Your task to perform on an android device: Go to calendar. Show me events next week Image 0: 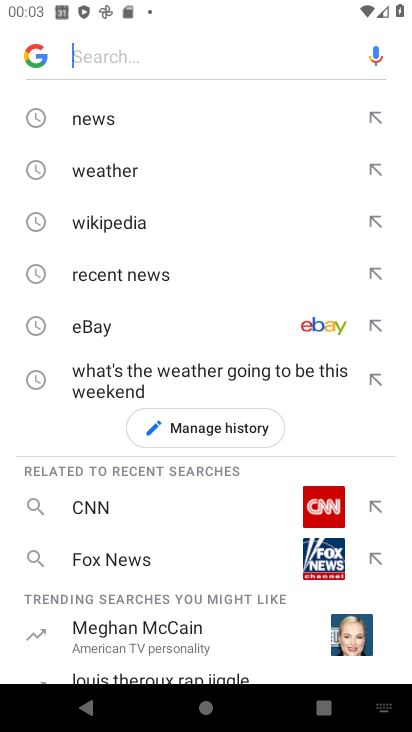
Step 0: press back button
Your task to perform on an android device: Go to calendar. Show me events next week Image 1: 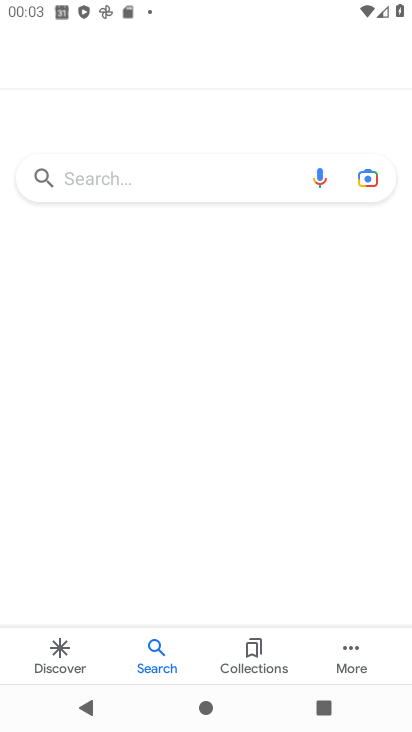
Step 1: press back button
Your task to perform on an android device: Go to calendar. Show me events next week Image 2: 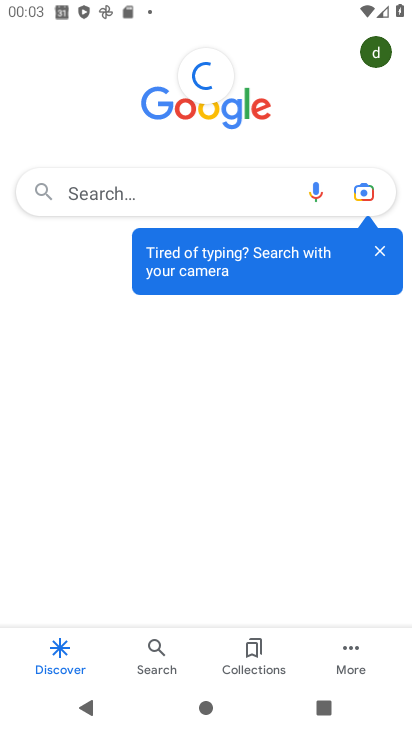
Step 2: press back button
Your task to perform on an android device: Go to calendar. Show me events next week Image 3: 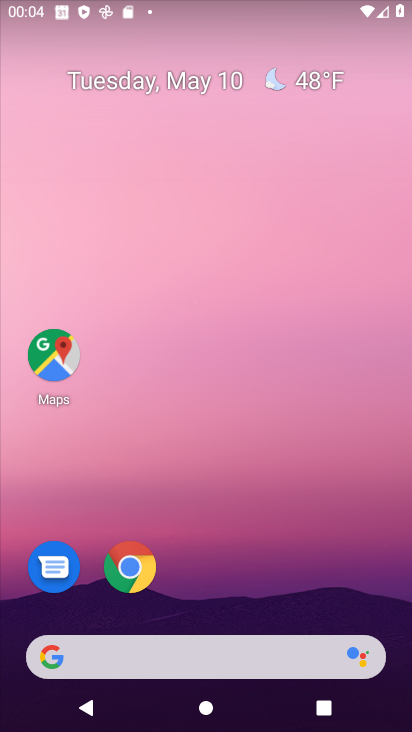
Step 3: drag from (236, 580) to (147, 128)
Your task to perform on an android device: Go to calendar. Show me events next week Image 4: 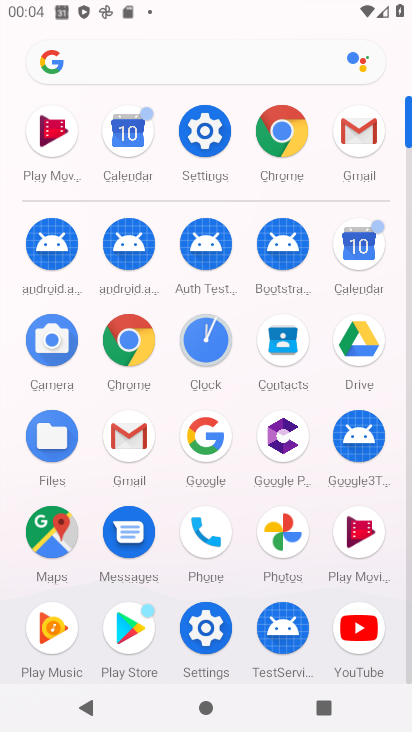
Step 4: click (125, 133)
Your task to perform on an android device: Go to calendar. Show me events next week Image 5: 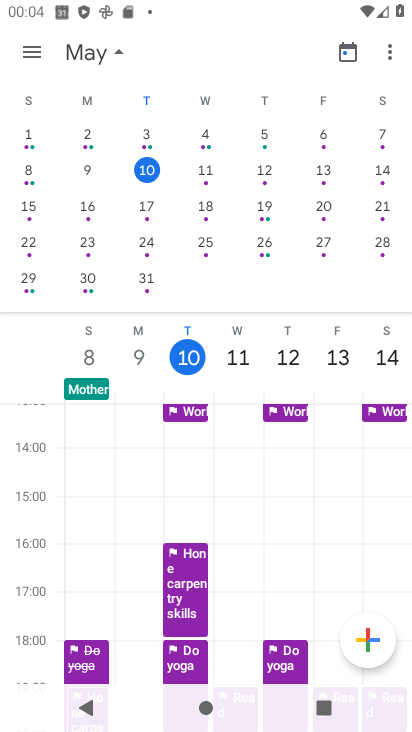
Step 5: click (86, 241)
Your task to perform on an android device: Go to calendar. Show me events next week Image 6: 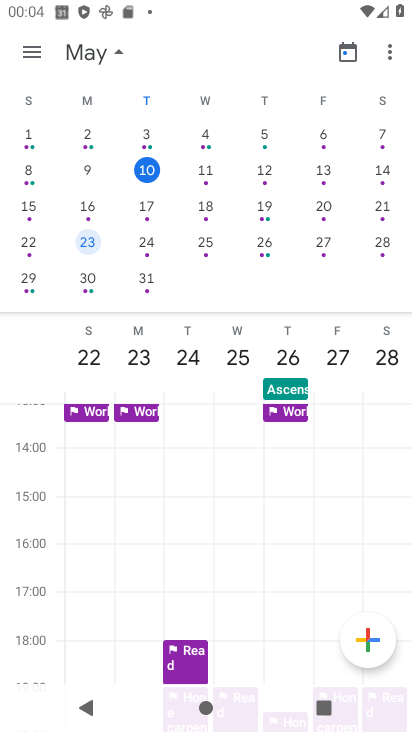
Step 6: click (25, 43)
Your task to perform on an android device: Go to calendar. Show me events next week Image 7: 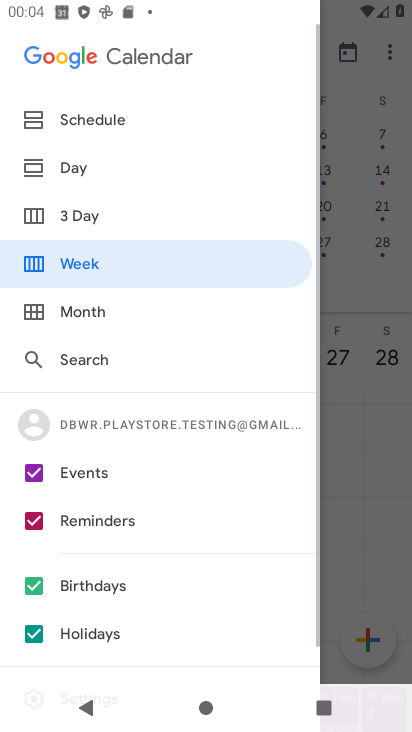
Step 7: click (108, 265)
Your task to perform on an android device: Go to calendar. Show me events next week Image 8: 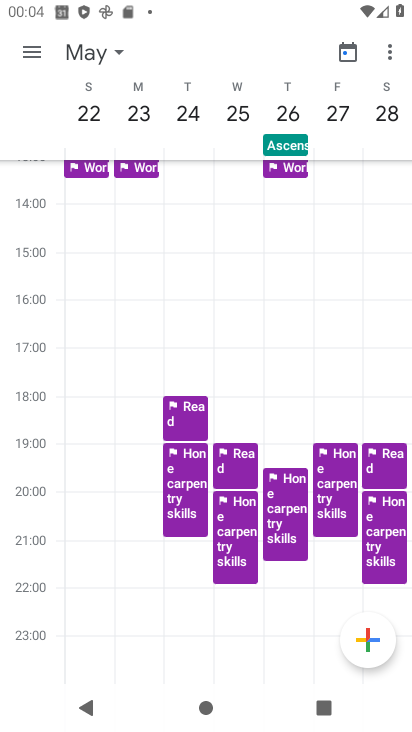
Step 8: task complete